Your task to perform on an android device: Search for Italian restaurants on Maps Image 0: 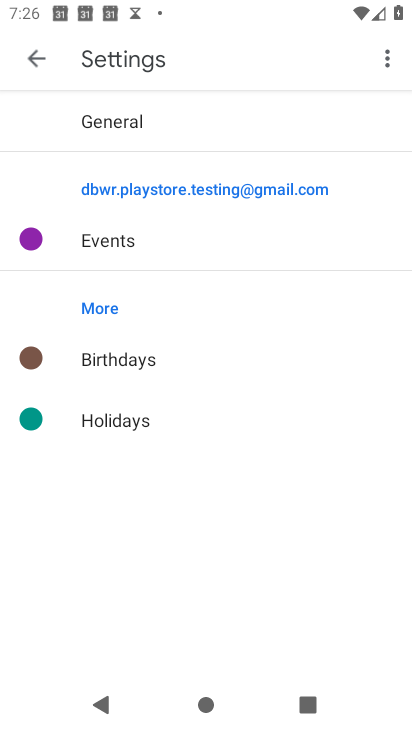
Step 0: press home button
Your task to perform on an android device: Search for Italian restaurants on Maps Image 1: 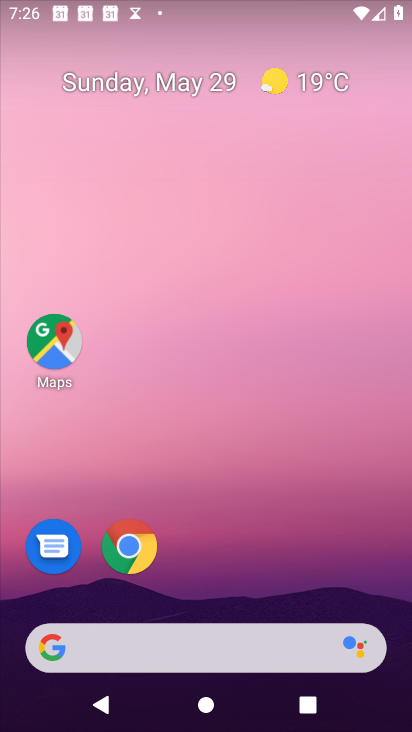
Step 1: click (61, 353)
Your task to perform on an android device: Search for Italian restaurants on Maps Image 2: 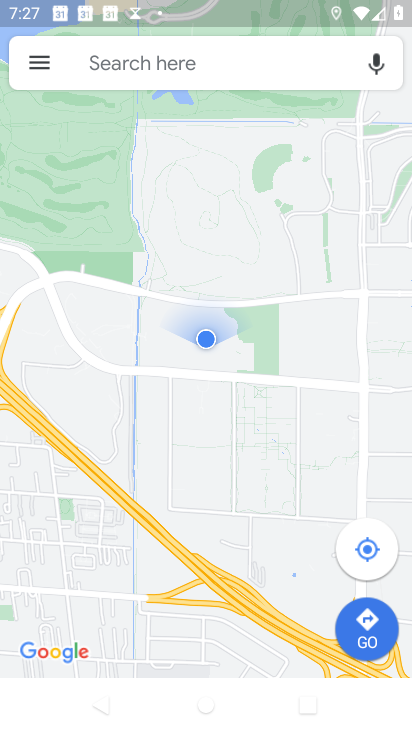
Step 2: click (136, 50)
Your task to perform on an android device: Search for Italian restaurants on Maps Image 3: 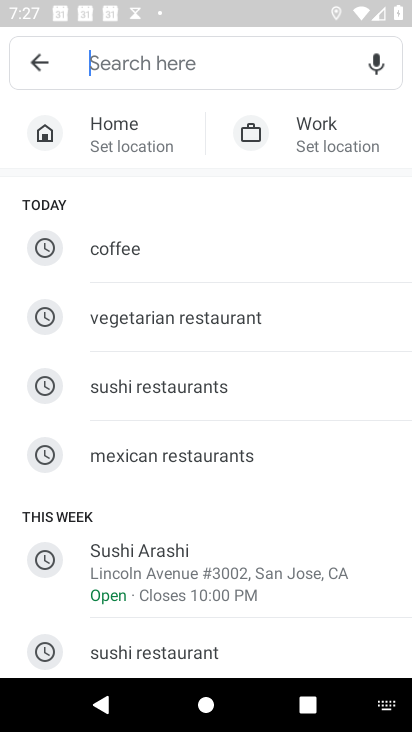
Step 3: drag from (162, 633) to (208, 365)
Your task to perform on an android device: Search for Italian restaurants on Maps Image 4: 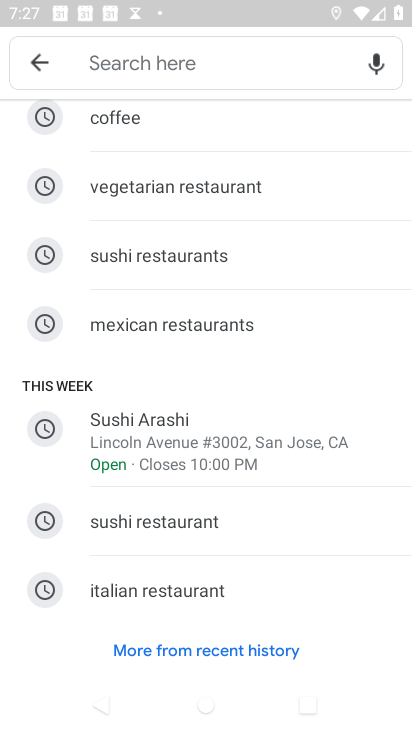
Step 4: click (165, 602)
Your task to perform on an android device: Search for Italian restaurants on Maps Image 5: 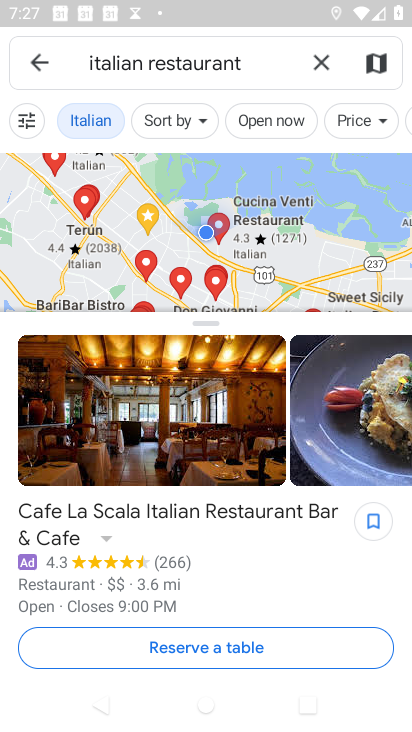
Step 5: task complete